Your task to perform on an android device: turn off javascript in the chrome app Image 0: 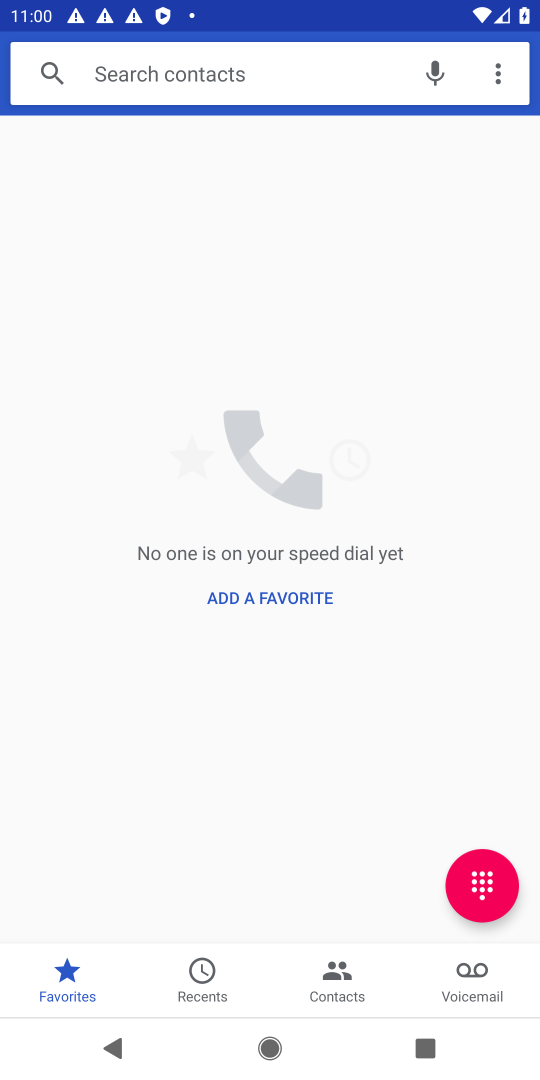
Step 0: press home button
Your task to perform on an android device: turn off javascript in the chrome app Image 1: 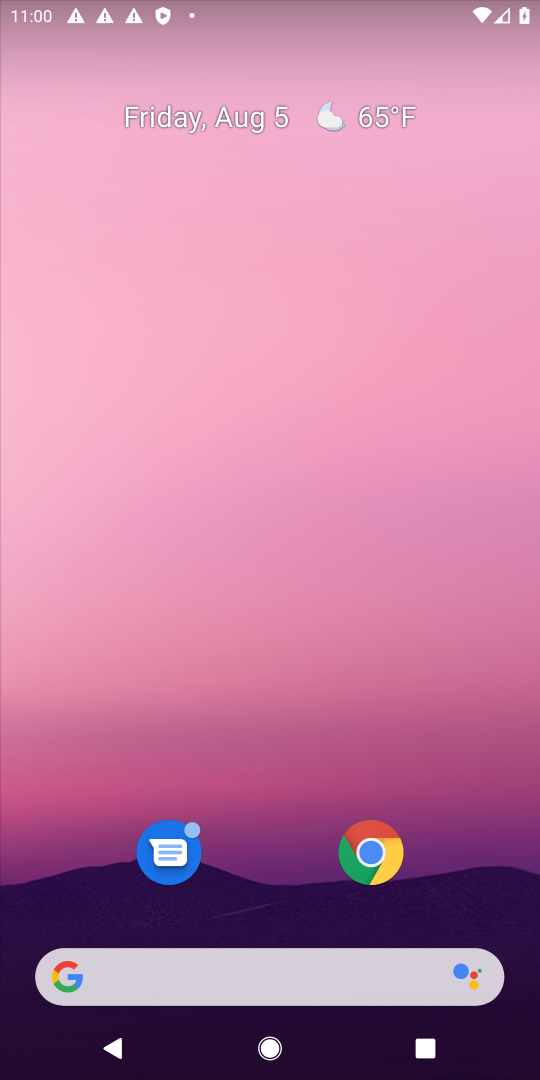
Step 1: drag from (334, 983) to (249, 237)
Your task to perform on an android device: turn off javascript in the chrome app Image 2: 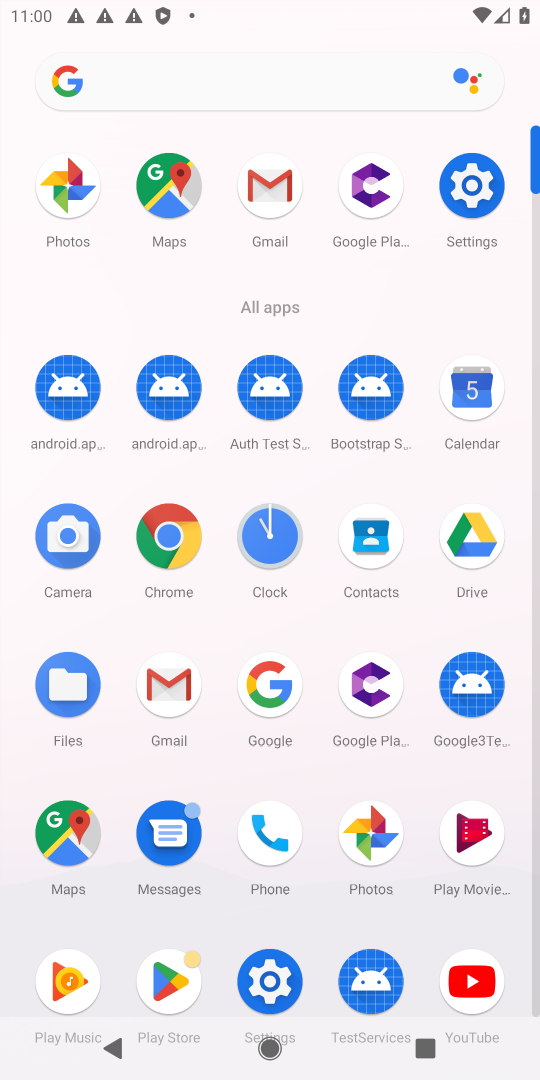
Step 2: click (172, 557)
Your task to perform on an android device: turn off javascript in the chrome app Image 3: 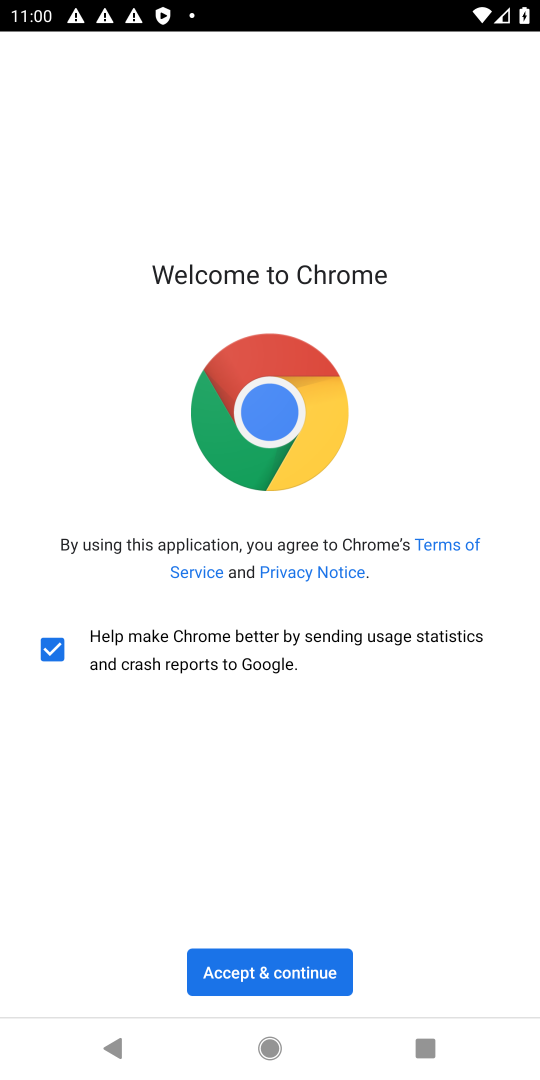
Step 3: click (255, 977)
Your task to perform on an android device: turn off javascript in the chrome app Image 4: 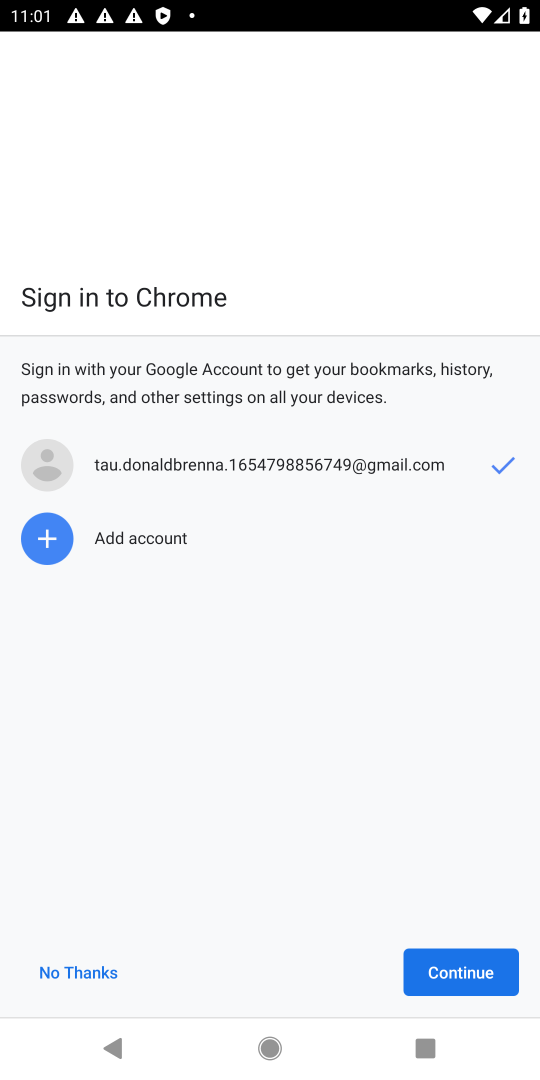
Step 4: click (480, 947)
Your task to perform on an android device: turn off javascript in the chrome app Image 5: 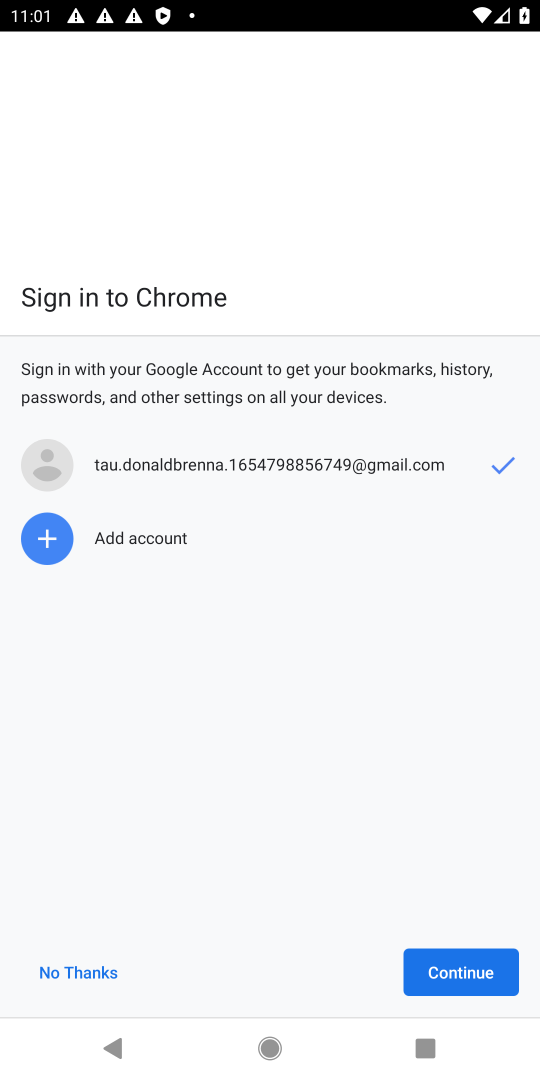
Step 5: click (456, 975)
Your task to perform on an android device: turn off javascript in the chrome app Image 6: 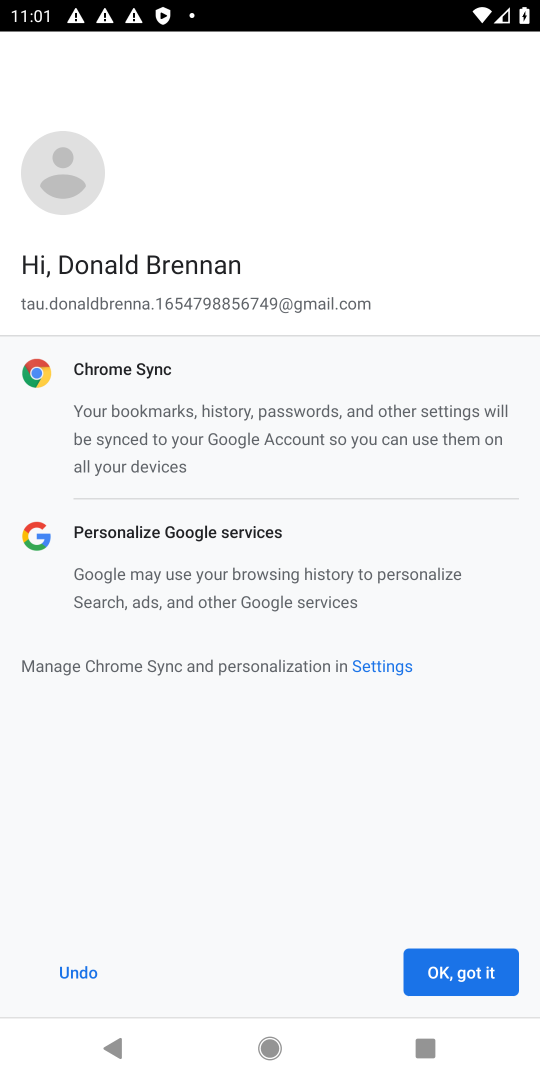
Step 6: click (451, 949)
Your task to perform on an android device: turn off javascript in the chrome app Image 7: 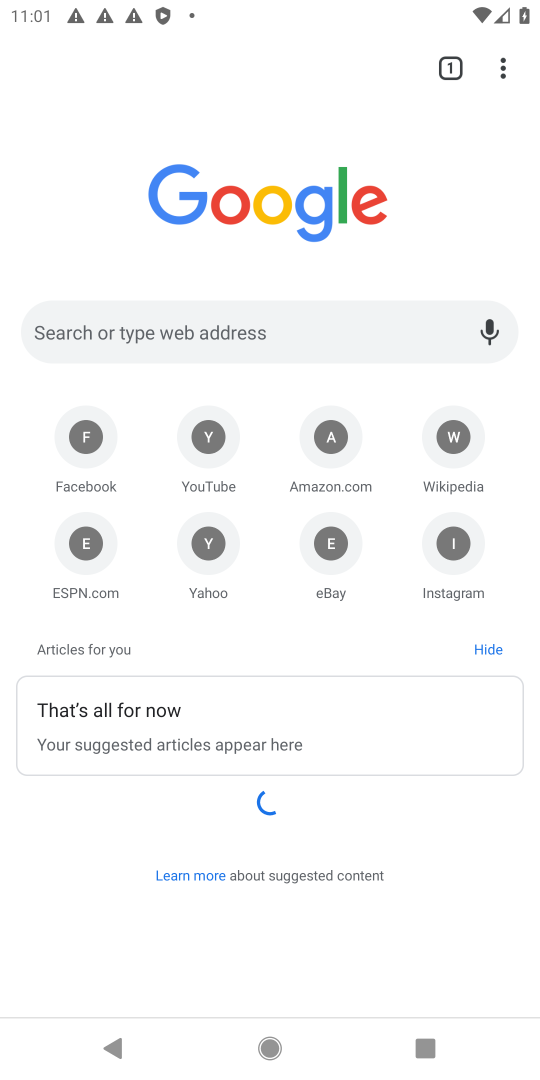
Step 7: click (501, 69)
Your task to perform on an android device: turn off javascript in the chrome app Image 8: 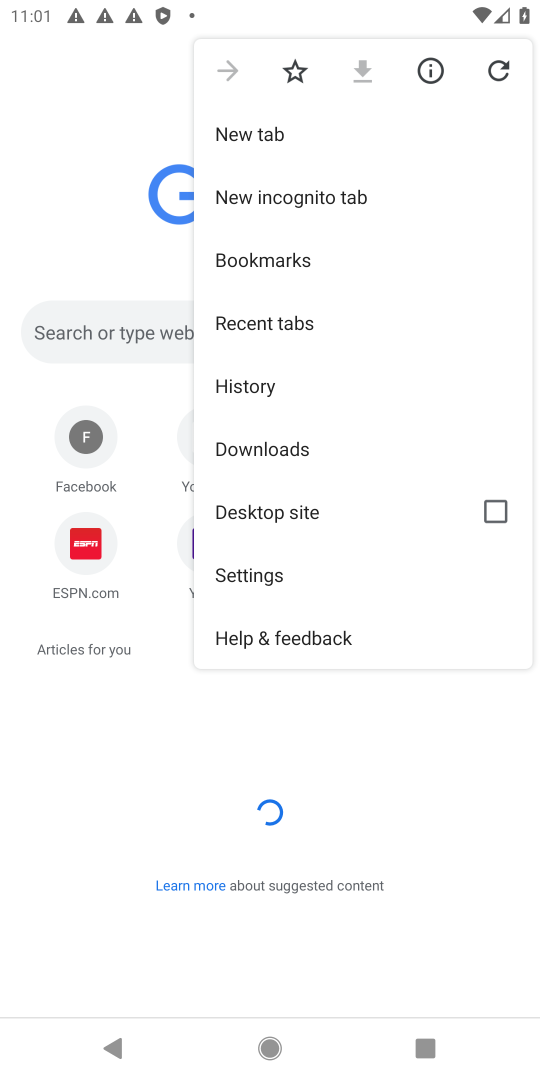
Step 8: click (260, 559)
Your task to perform on an android device: turn off javascript in the chrome app Image 9: 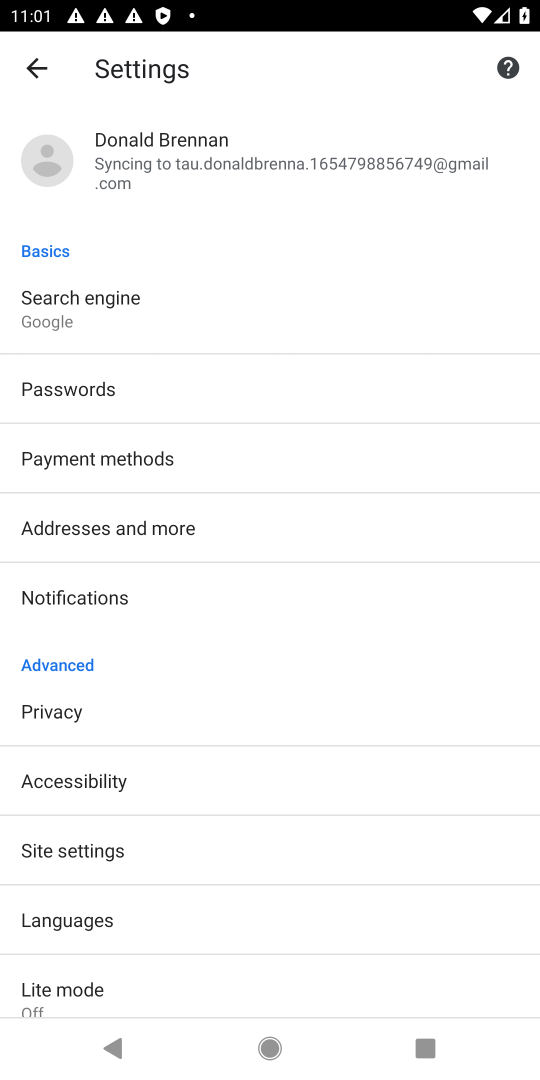
Step 9: click (92, 841)
Your task to perform on an android device: turn off javascript in the chrome app Image 10: 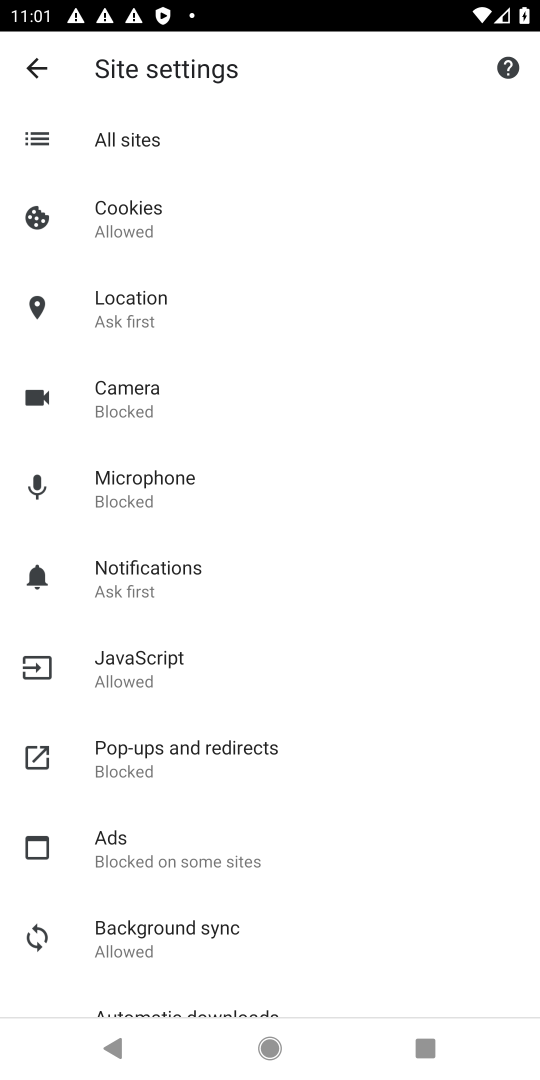
Step 10: click (137, 663)
Your task to perform on an android device: turn off javascript in the chrome app Image 11: 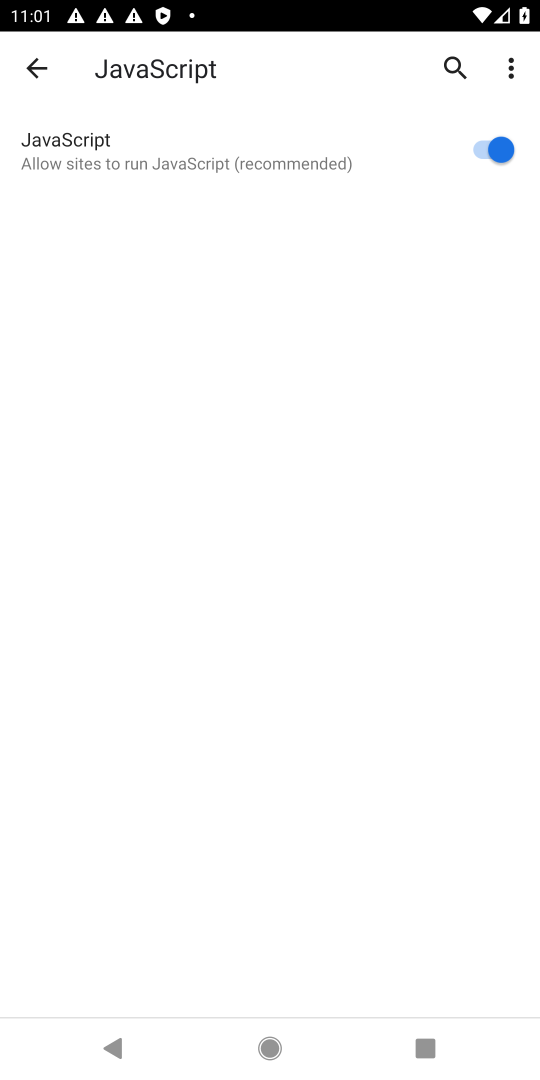
Step 11: click (485, 137)
Your task to perform on an android device: turn off javascript in the chrome app Image 12: 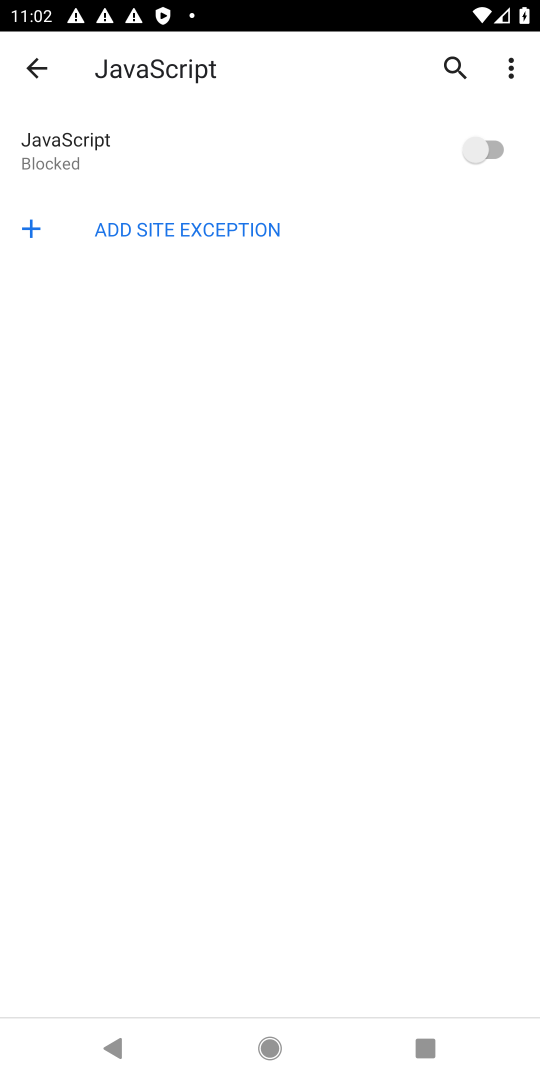
Step 12: task complete